Your task to perform on an android device: Empty the shopping cart on amazon. Image 0: 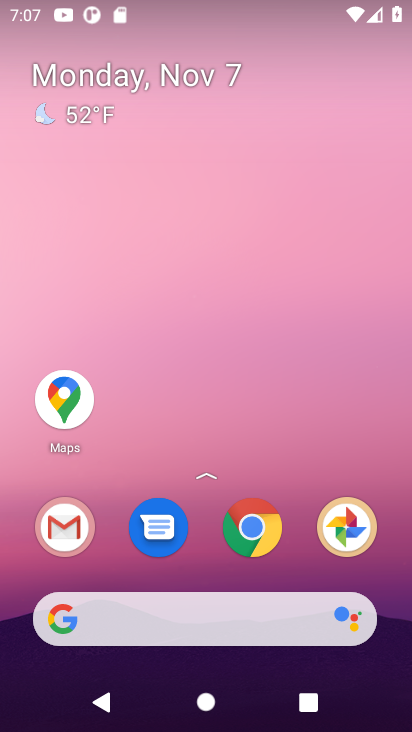
Step 0: click (228, 530)
Your task to perform on an android device: Empty the shopping cart on amazon. Image 1: 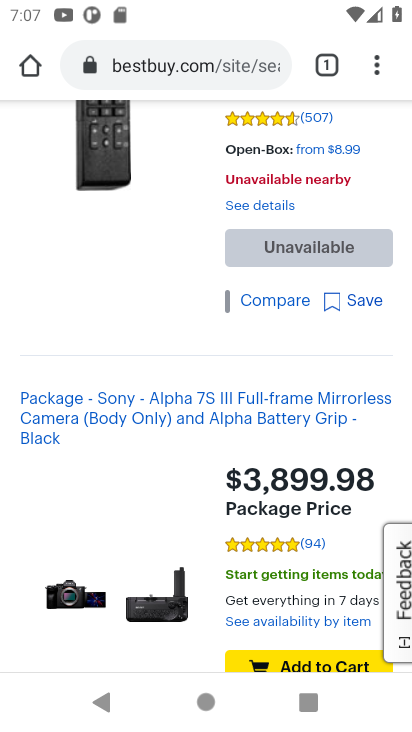
Step 1: click (190, 57)
Your task to perform on an android device: Empty the shopping cart on amazon. Image 2: 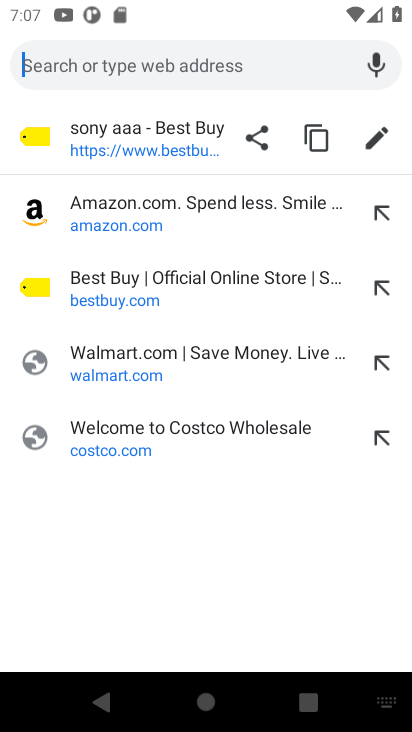
Step 2: type "amazon"
Your task to perform on an android device: Empty the shopping cart on amazon. Image 3: 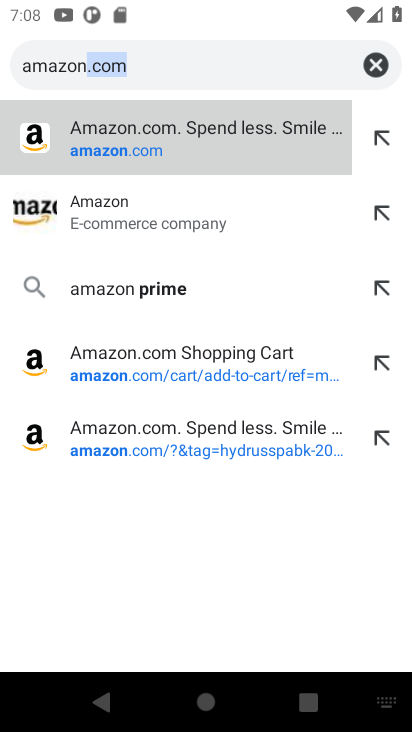
Step 3: click (263, 125)
Your task to perform on an android device: Empty the shopping cart on amazon. Image 4: 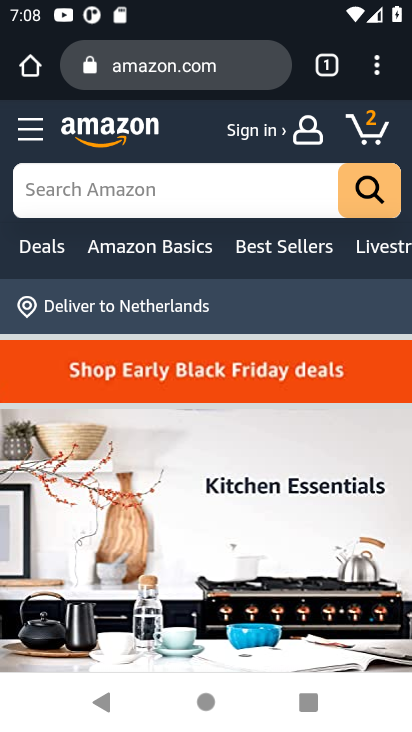
Step 4: click (364, 120)
Your task to perform on an android device: Empty the shopping cart on amazon. Image 5: 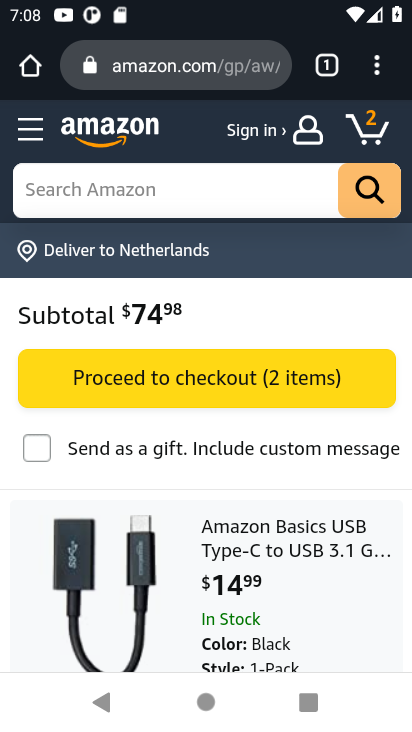
Step 5: drag from (271, 581) to (255, 175)
Your task to perform on an android device: Empty the shopping cart on amazon. Image 6: 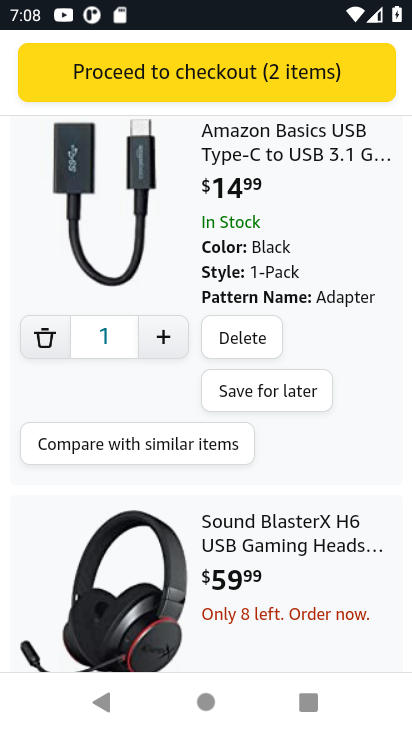
Step 6: click (224, 340)
Your task to perform on an android device: Empty the shopping cart on amazon. Image 7: 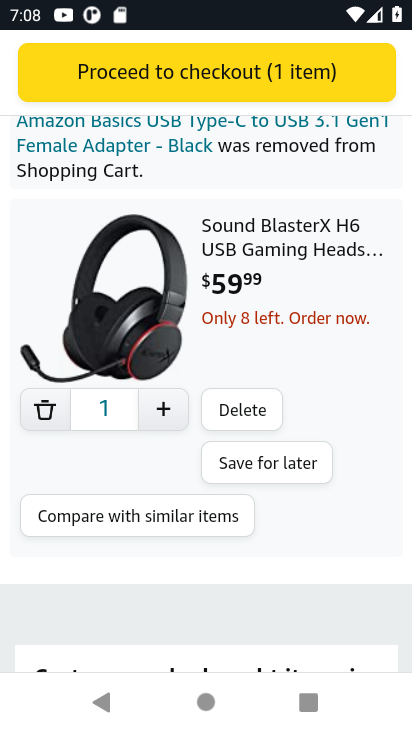
Step 7: click (235, 407)
Your task to perform on an android device: Empty the shopping cart on amazon. Image 8: 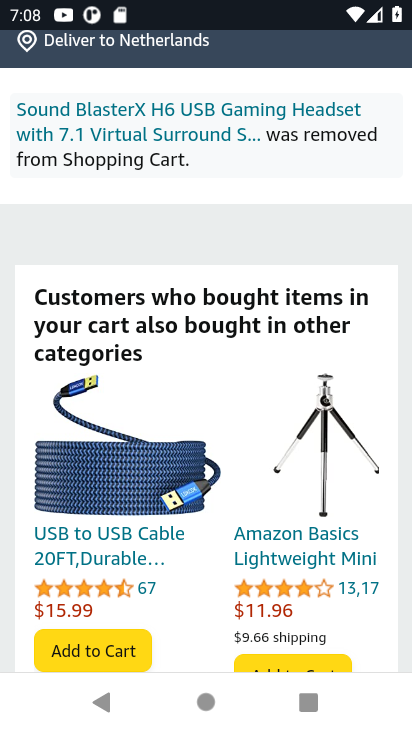
Step 8: task complete